Your task to perform on an android device: turn on airplane mode Image 0: 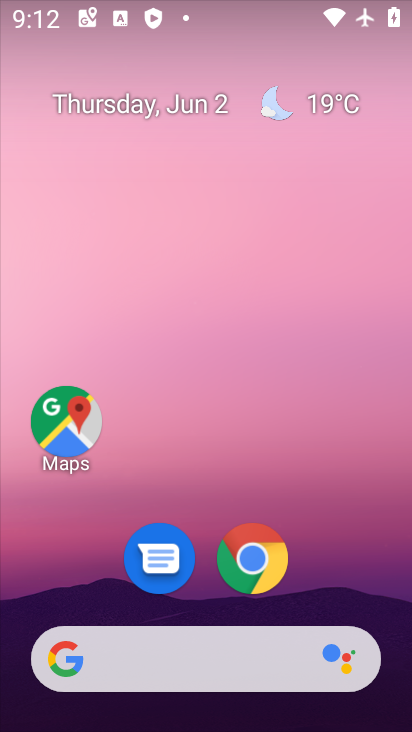
Step 0: drag from (347, 327) to (295, 161)
Your task to perform on an android device: turn on airplane mode Image 1: 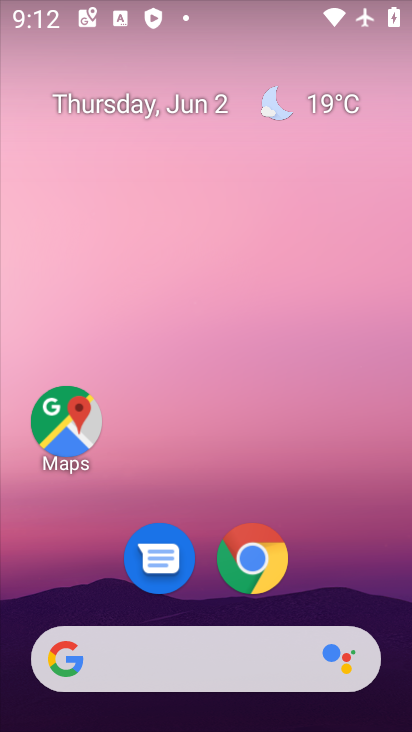
Step 1: drag from (368, 574) to (327, 6)
Your task to perform on an android device: turn on airplane mode Image 2: 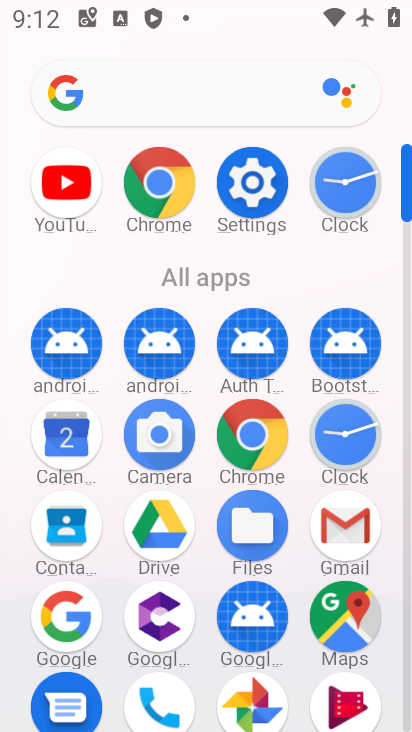
Step 2: click (409, 694)
Your task to perform on an android device: turn on airplane mode Image 3: 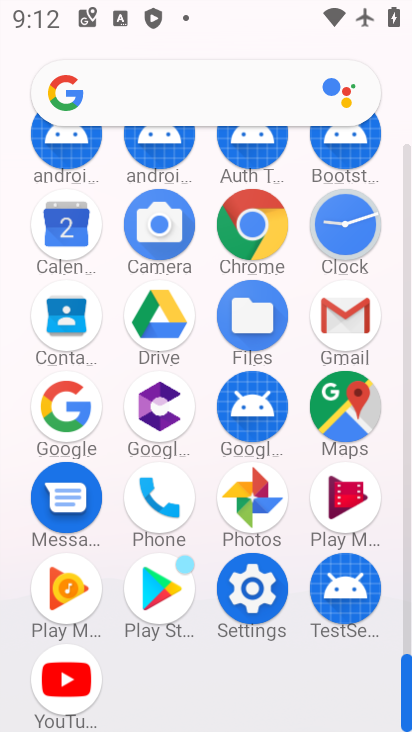
Step 3: click (255, 590)
Your task to perform on an android device: turn on airplane mode Image 4: 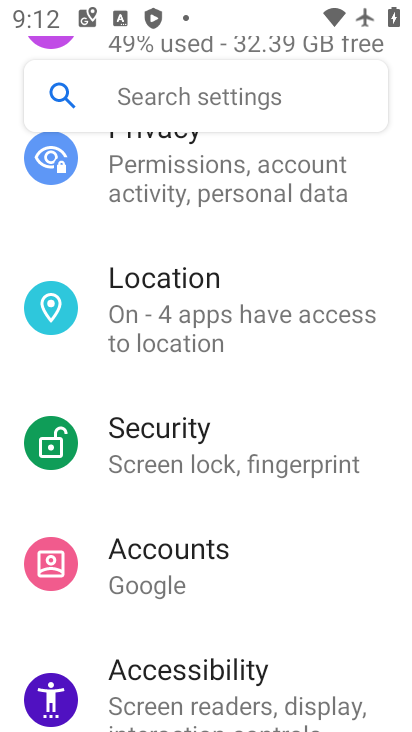
Step 4: drag from (315, 208) to (301, 639)
Your task to perform on an android device: turn on airplane mode Image 5: 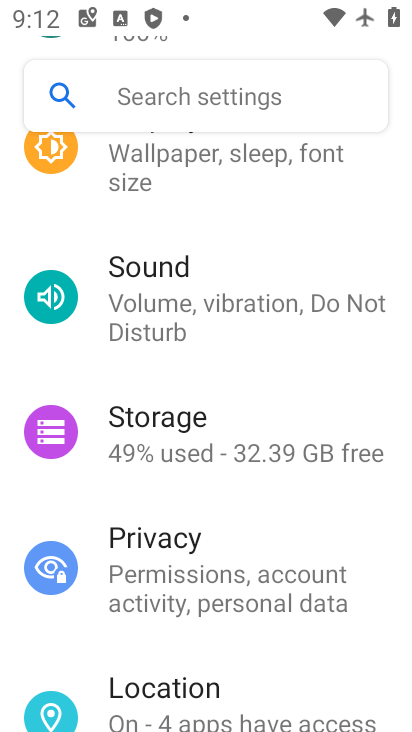
Step 5: drag from (365, 268) to (304, 674)
Your task to perform on an android device: turn on airplane mode Image 6: 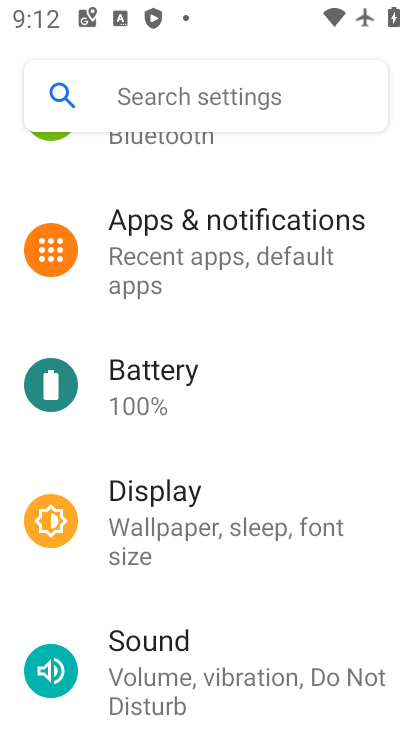
Step 6: drag from (372, 195) to (340, 465)
Your task to perform on an android device: turn on airplane mode Image 7: 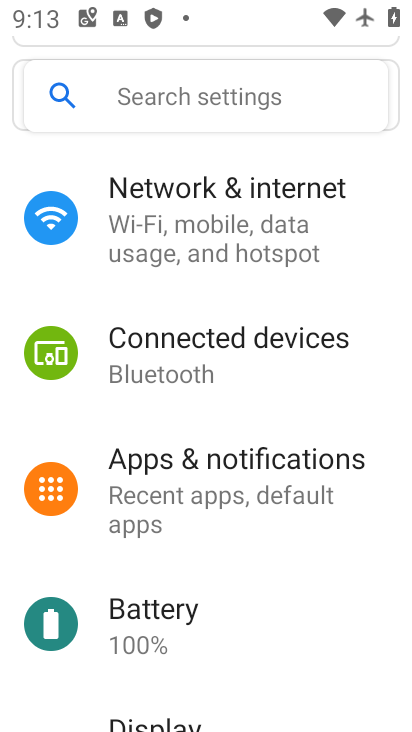
Step 7: click (157, 212)
Your task to perform on an android device: turn on airplane mode Image 8: 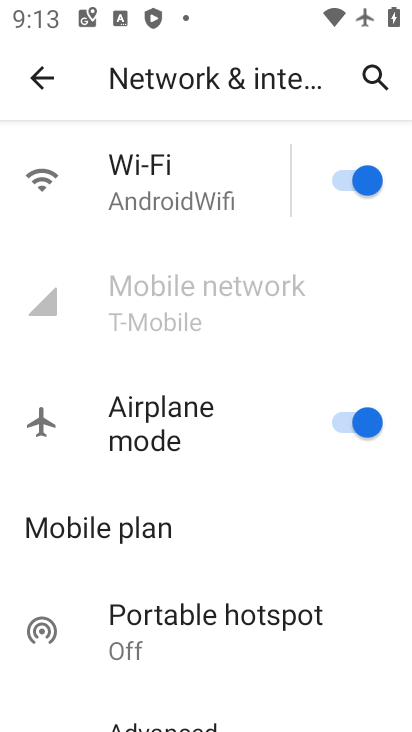
Step 8: task complete